Your task to perform on an android device: find photos in the google photos app Image 0: 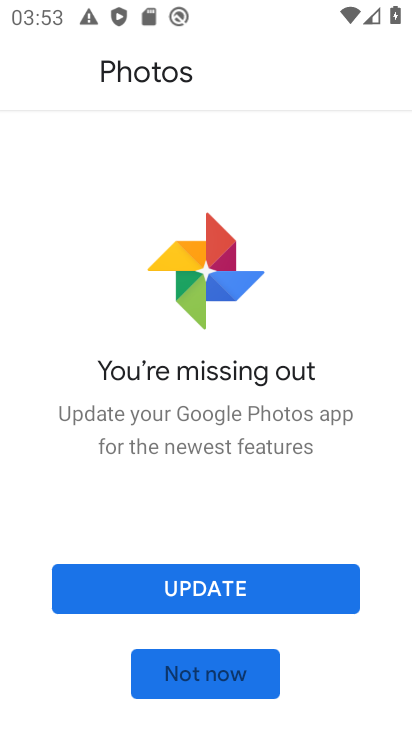
Step 0: click (193, 679)
Your task to perform on an android device: find photos in the google photos app Image 1: 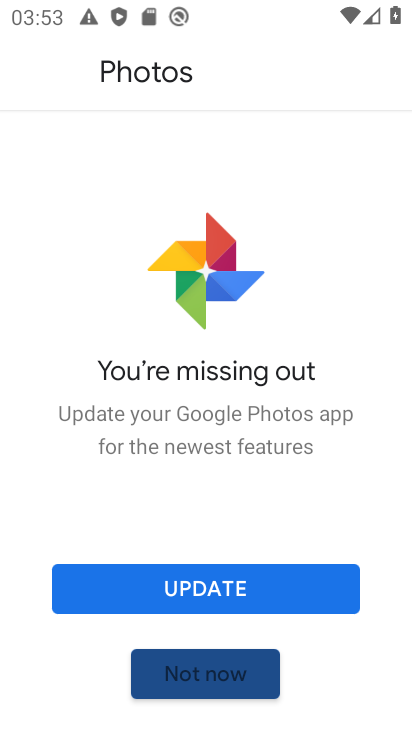
Step 1: click (189, 673)
Your task to perform on an android device: find photos in the google photos app Image 2: 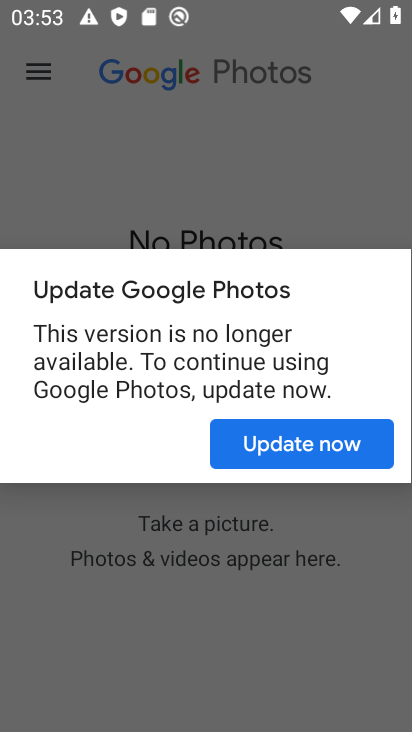
Step 2: click (301, 429)
Your task to perform on an android device: find photos in the google photos app Image 3: 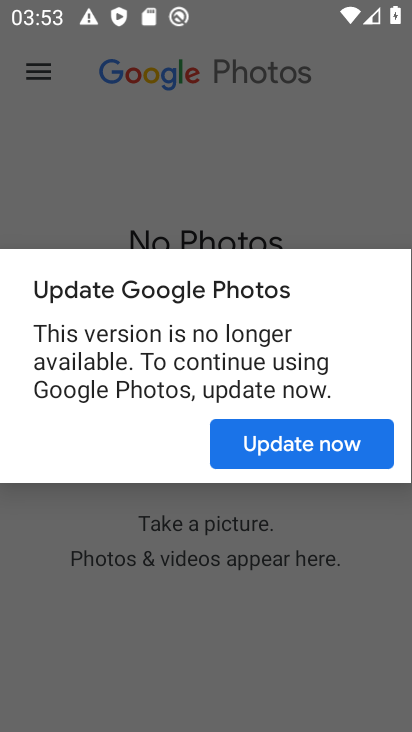
Step 3: click (301, 435)
Your task to perform on an android device: find photos in the google photos app Image 4: 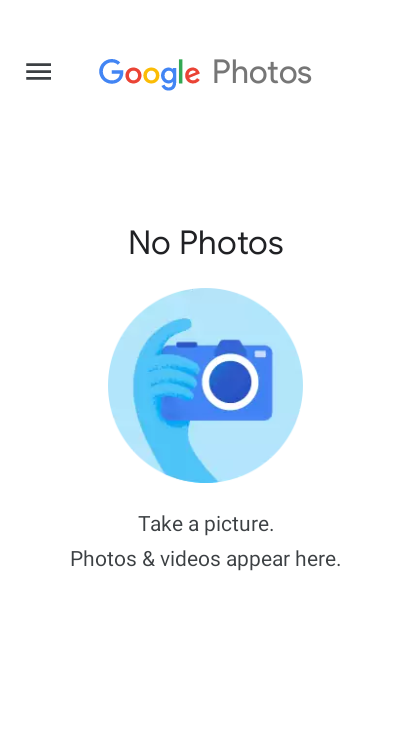
Step 4: click (302, 436)
Your task to perform on an android device: find photos in the google photos app Image 5: 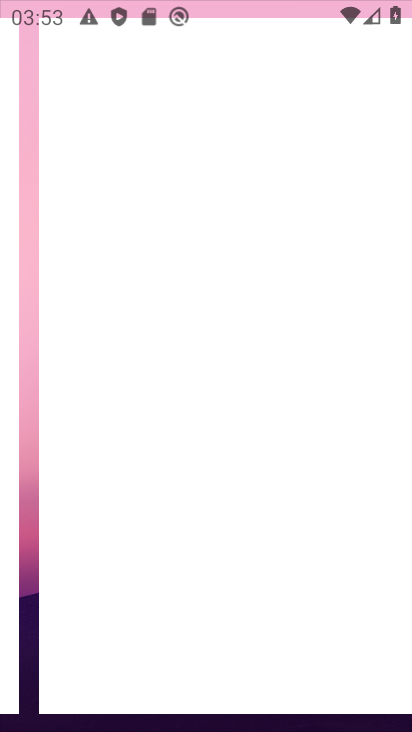
Step 5: click (302, 436)
Your task to perform on an android device: find photos in the google photos app Image 6: 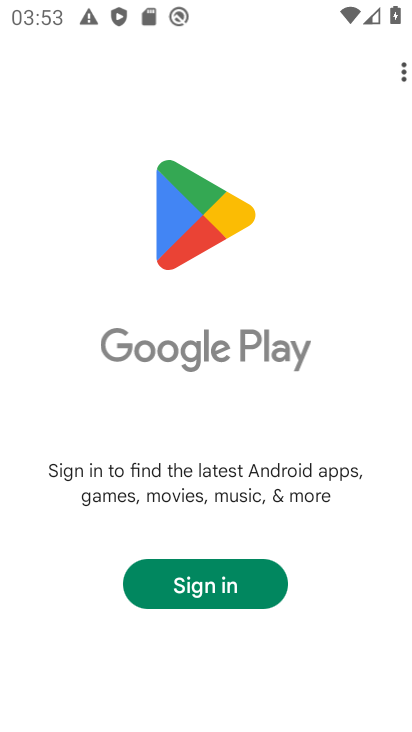
Step 6: task complete